Your task to perform on an android device: Open wifi settings Image 0: 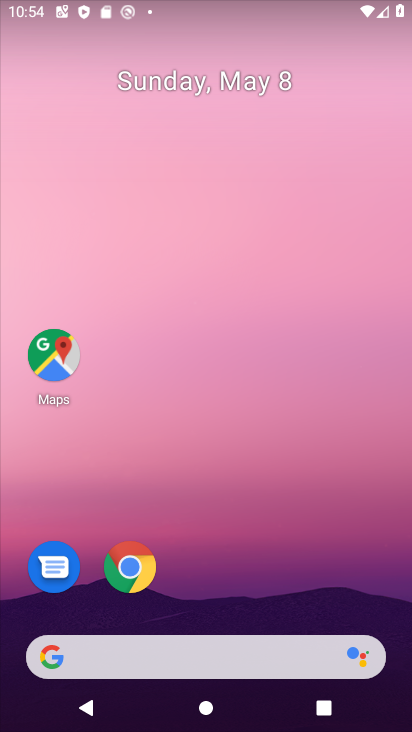
Step 0: drag from (218, 599) to (224, 381)
Your task to perform on an android device: Open wifi settings Image 1: 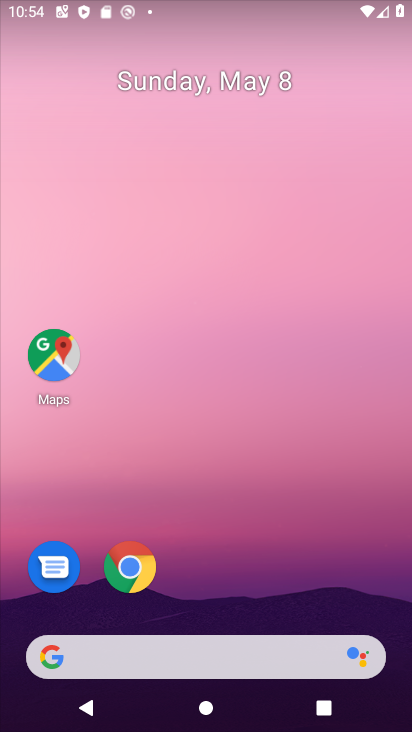
Step 1: drag from (235, 208) to (239, 72)
Your task to perform on an android device: Open wifi settings Image 2: 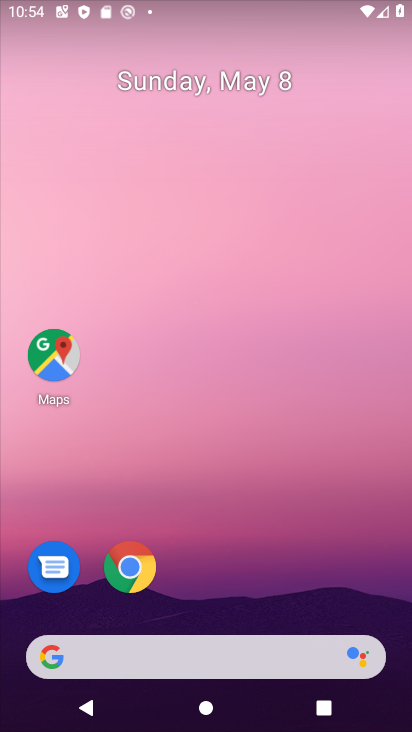
Step 2: drag from (205, 610) to (249, 94)
Your task to perform on an android device: Open wifi settings Image 3: 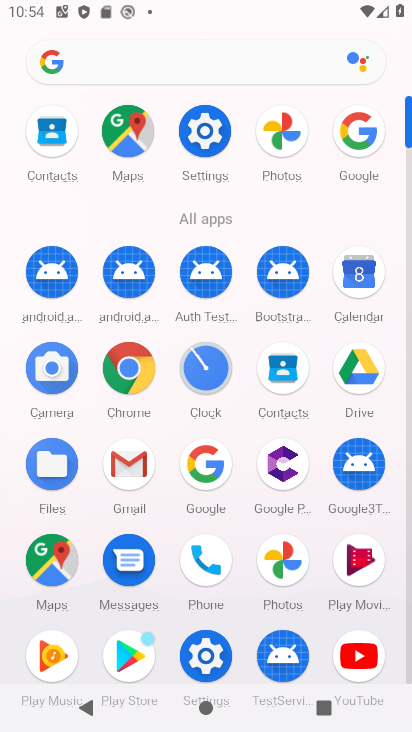
Step 3: click (202, 128)
Your task to perform on an android device: Open wifi settings Image 4: 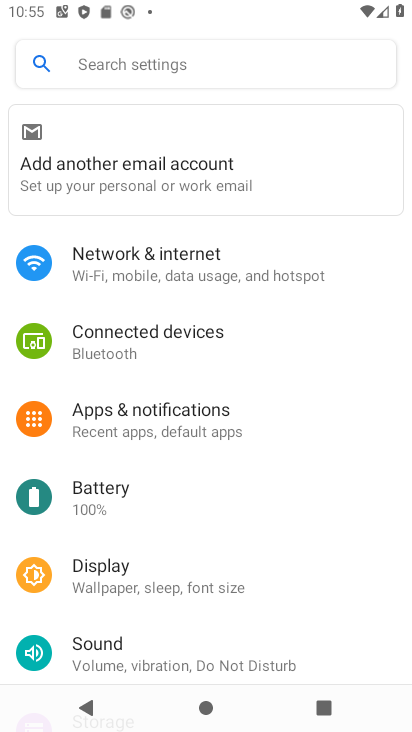
Step 4: click (176, 263)
Your task to perform on an android device: Open wifi settings Image 5: 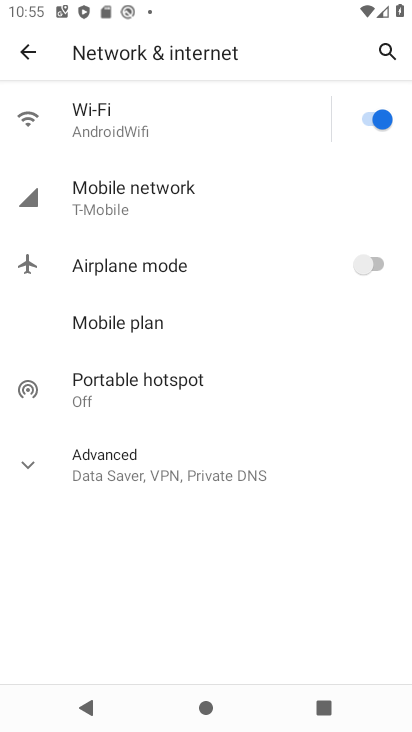
Step 5: click (32, 464)
Your task to perform on an android device: Open wifi settings Image 6: 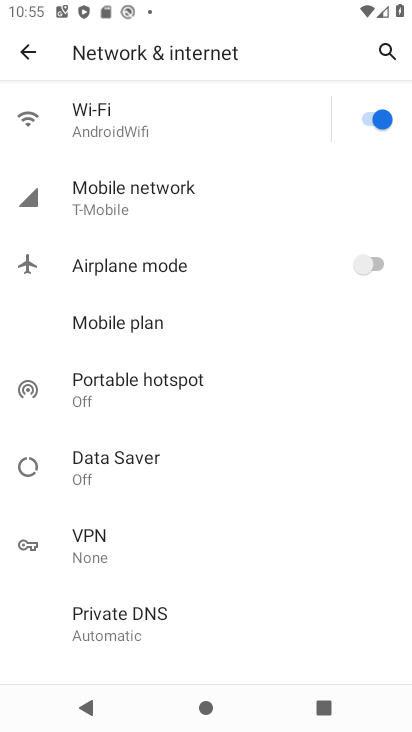
Step 6: click (170, 118)
Your task to perform on an android device: Open wifi settings Image 7: 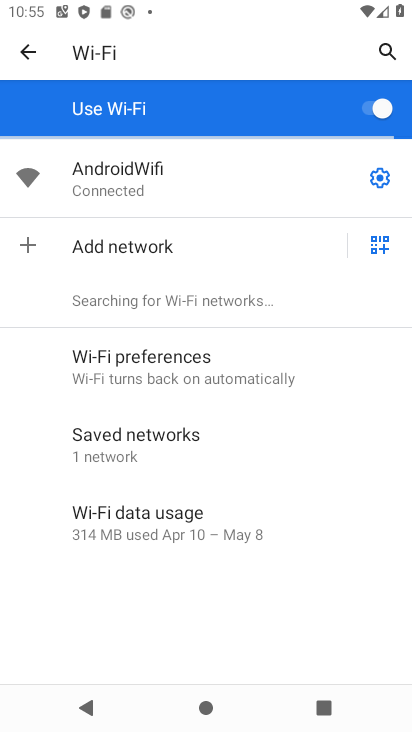
Step 7: task complete